Your task to perform on an android device: Play the last video I watched on Youtube Image 0: 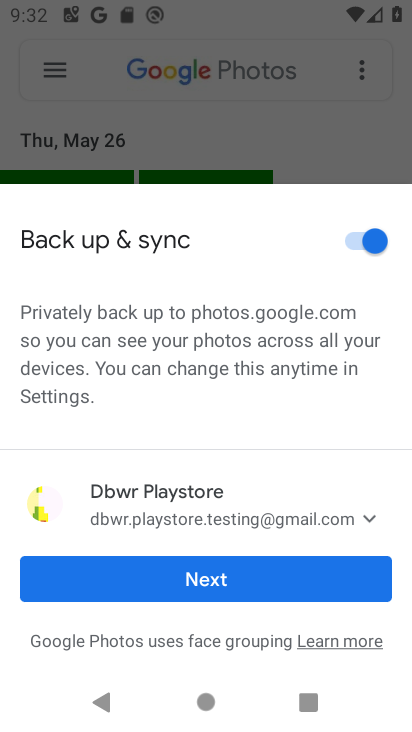
Step 0: press home button
Your task to perform on an android device: Play the last video I watched on Youtube Image 1: 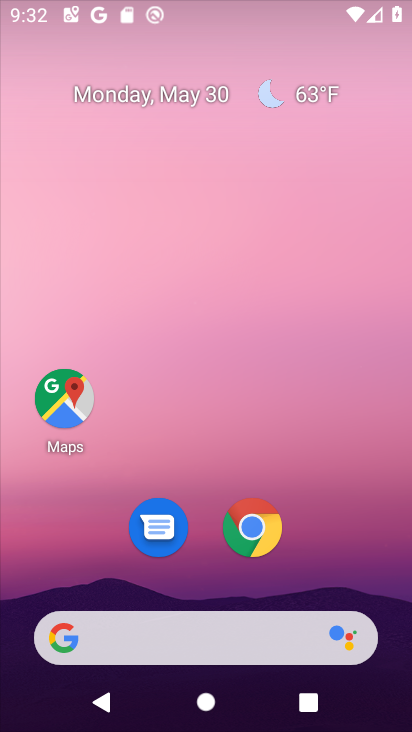
Step 1: drag from (312, 524) to (385, 164)
Your task to perform on an android device: Play the last video I watched on Youtube Image 2: 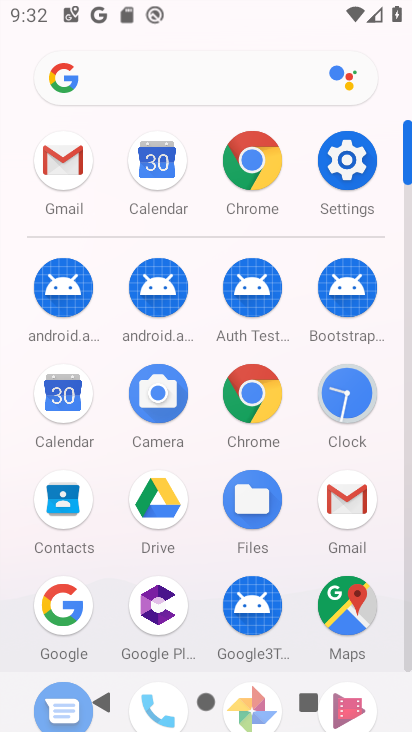
Step 2: drag from (314, 519) to (349, 371)
Your task to perform on an android device: Play the last video I watched on Youtube Image 3: 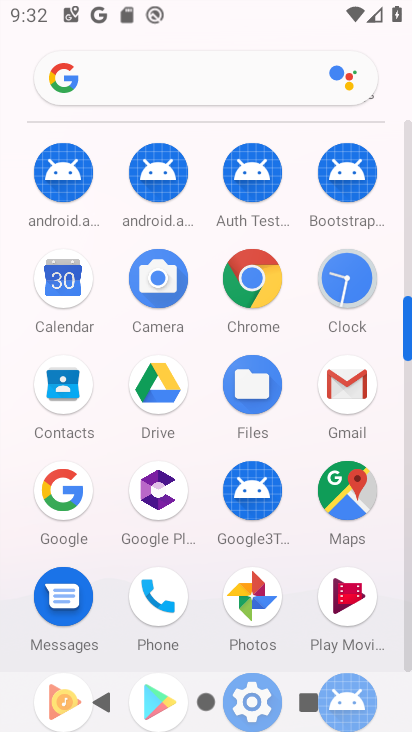
Step 3: click (348, 602)
Your task to perform on an android device: Play the last video I watched on Youtube Image 4: 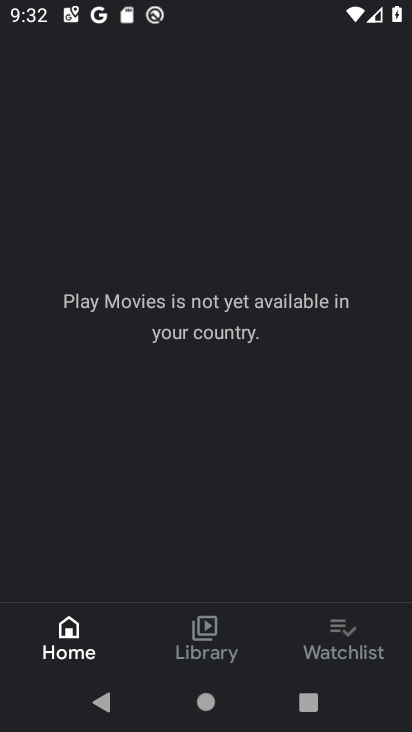
Step 4: press home button
Your task to perform on an android device: Play the last video I watched on Youtube Image 5: 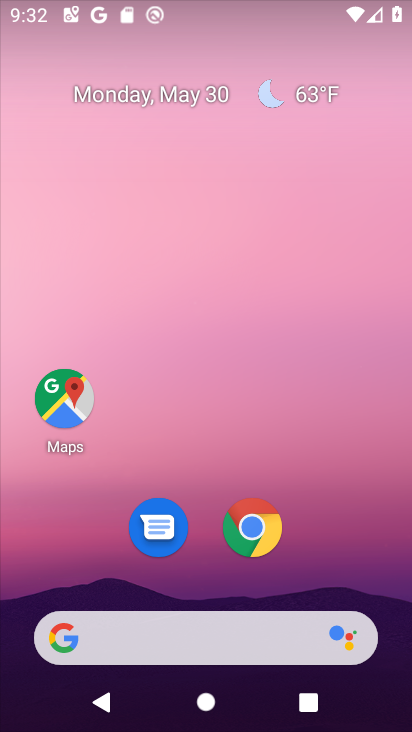
Step 5: drag from (280, 602) to (318, 176)
Your task to perform on an android device: Play the last video I watched on Youtube Image 6: 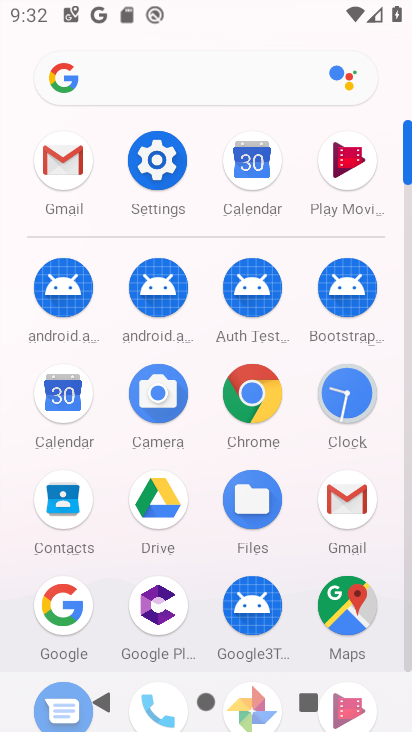
Step 6: drag from (184, 593) to (253, 137)
Your task to perform on an android device: Play the last video I watched on Youtube Image 7: 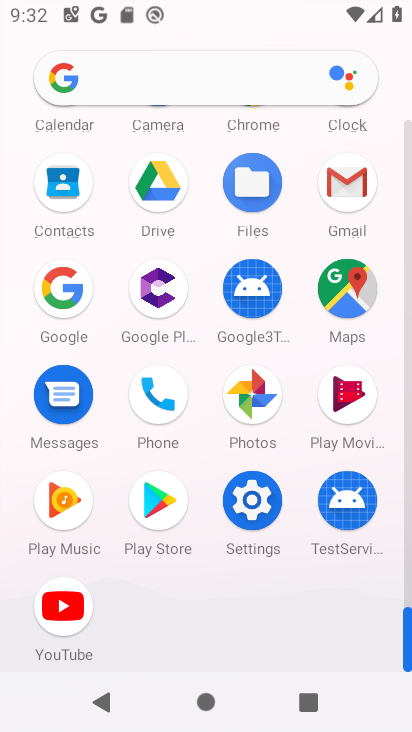
Step 7: click (41, 575)
Your task to perform on an android device: Play the last video I watched on Youtube Image 8: 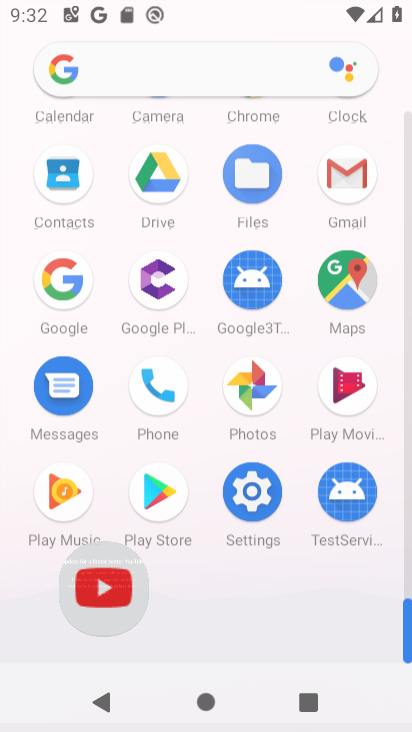
Step 8: click (50, 591)
Your task to perform on an android device: Play the last video I watched on Youtube Image 9: 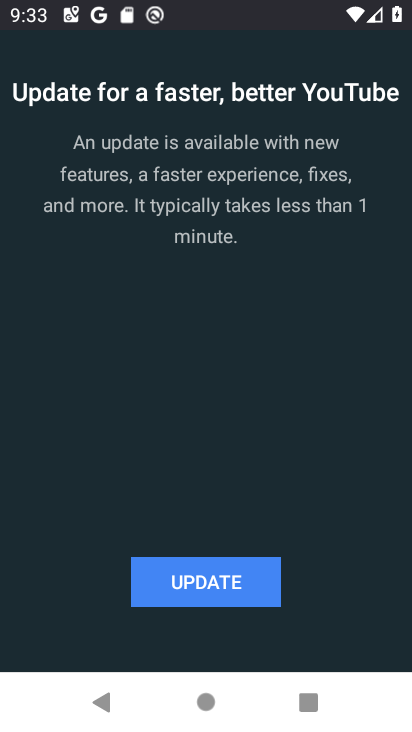
Step 9: task complete